Your task to perform on an android device: open app "NewsBreak: Local News & Alerts" Image 0: 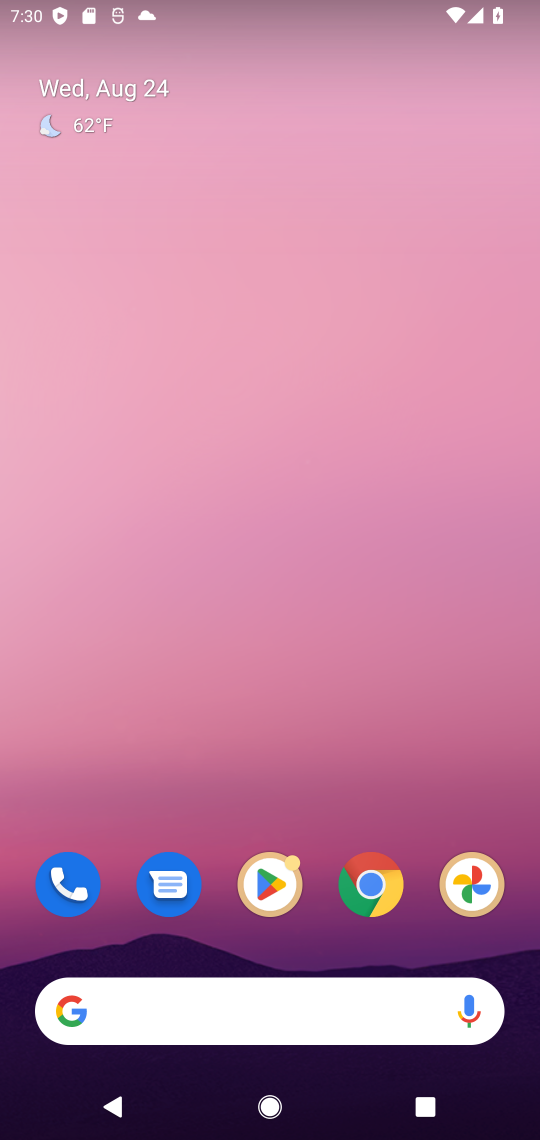
Step 0: click (261, 893)
Your task to perform on an android device: open app "NewsBreak: Local News & Alerts" Image 1: 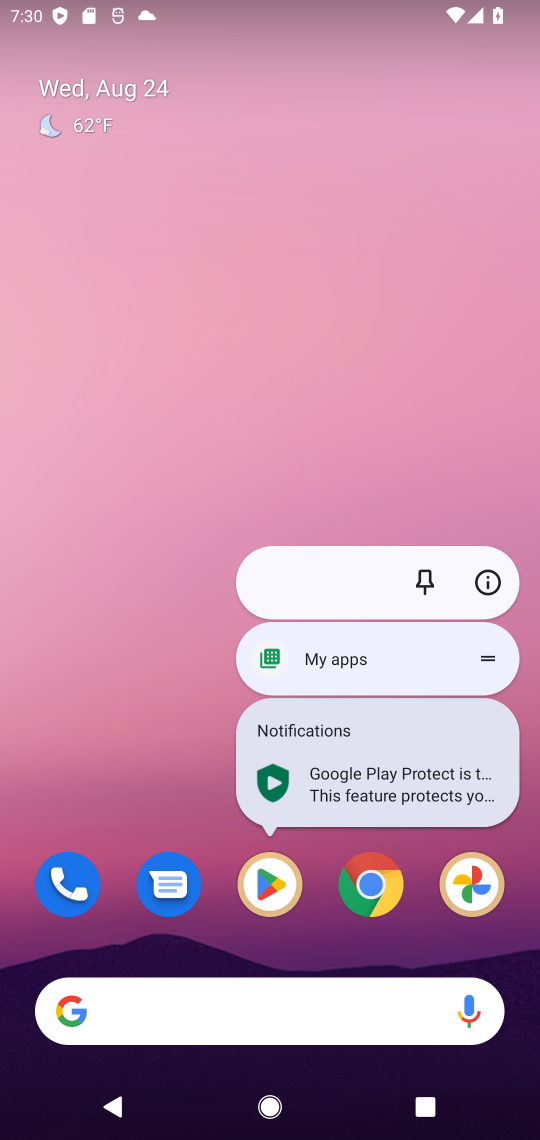
Step 1: click (278, 901)
Your task to perform on an android device: open app "NewsBreak: Local News & Alerts" Image 2: 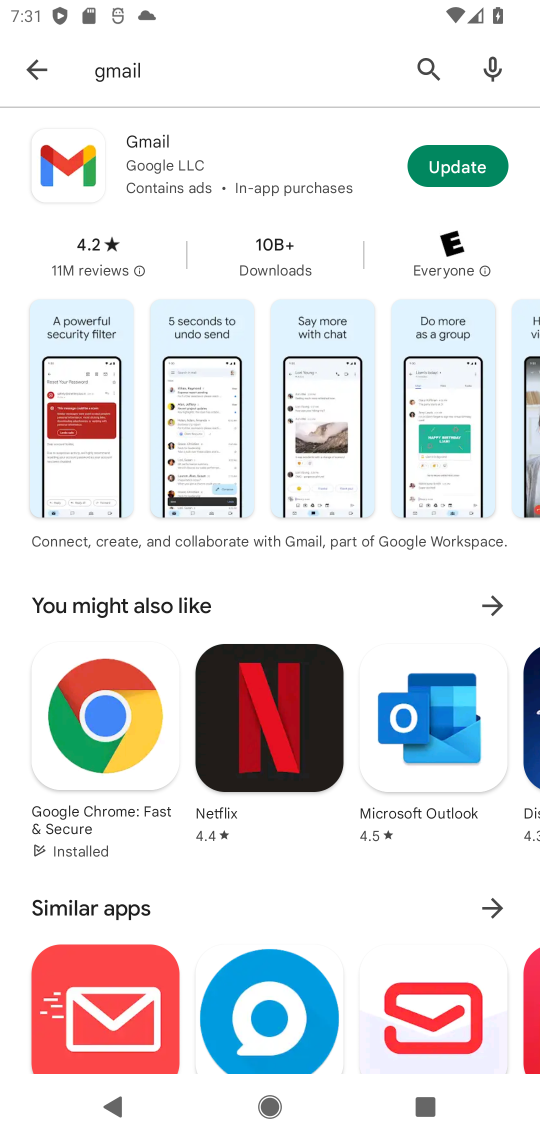
Step 2: click (431, 72)
Your task to perform on an android device: open app "NewsBreak: Local News & Alerts" Image 3: 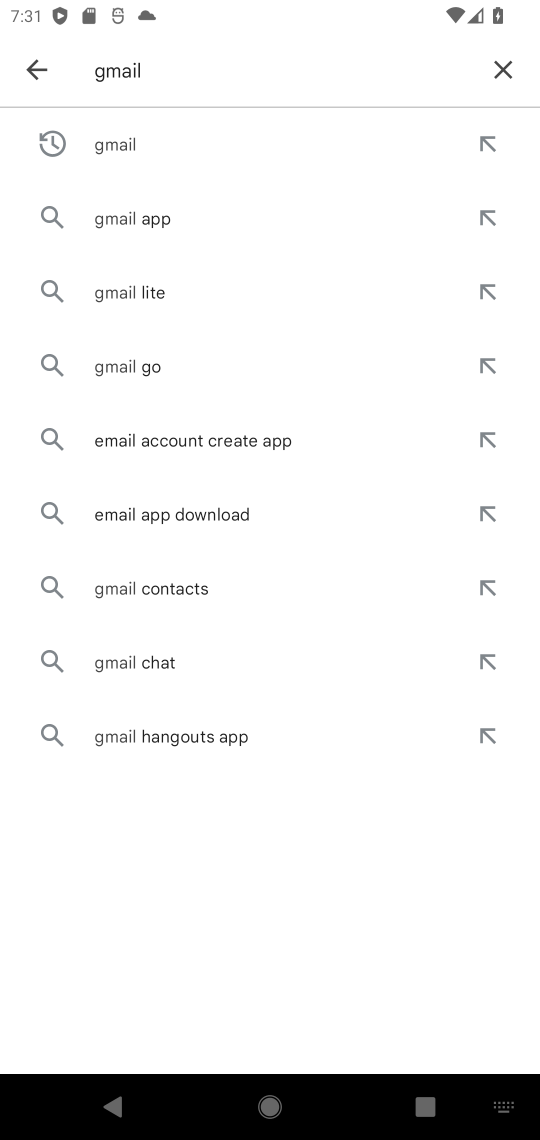
Step 3: click (505, 68)
Your task to perform on an android device: open app "NewsBreak: Local News & Alerts" Image 4: 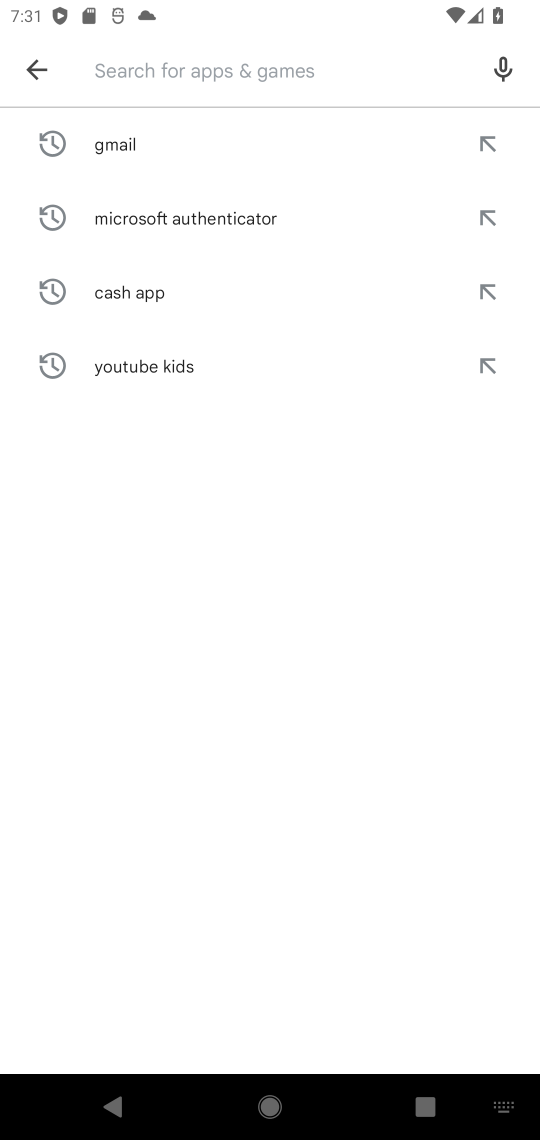
Step 4: type "newsbreak"
Your task to perform on an android device: open app "NewsBreak: Local News & Alerts" Image 5: 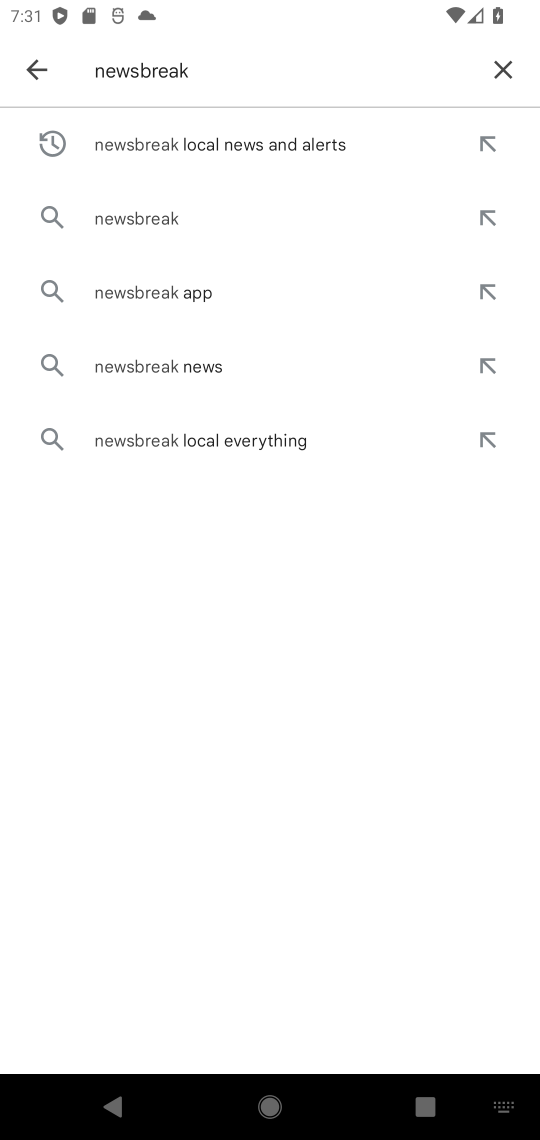
Step 5: click (207, 151)
Your task to perform on an android device: open app "NewsBreak: Local News & Alerts" Image 6: 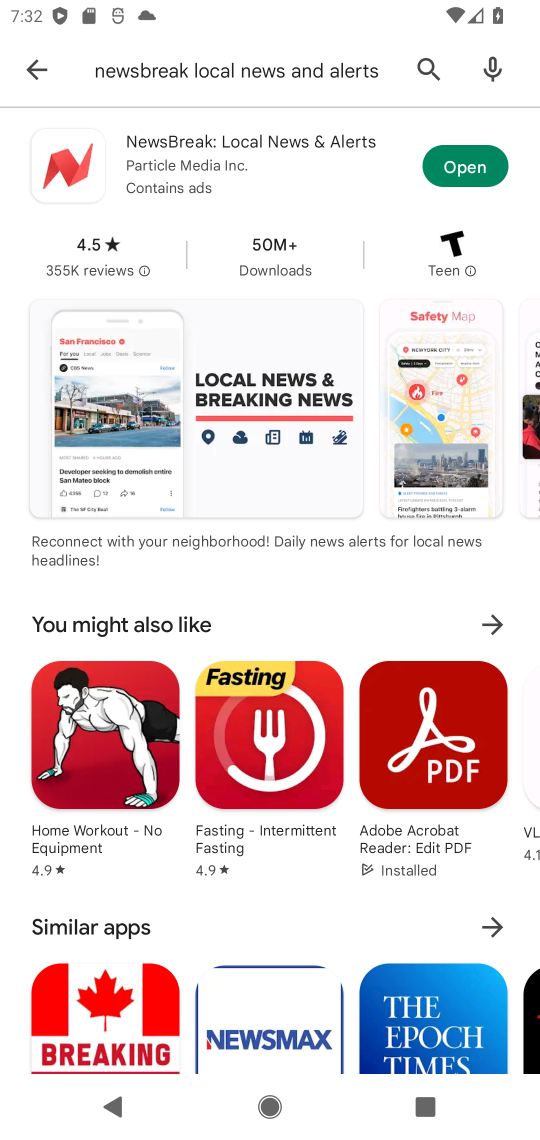
Step 6: click (452, 162)
Your task to perform on an android device: open app "NewsBreak: Local News & Alerts" Image 7: 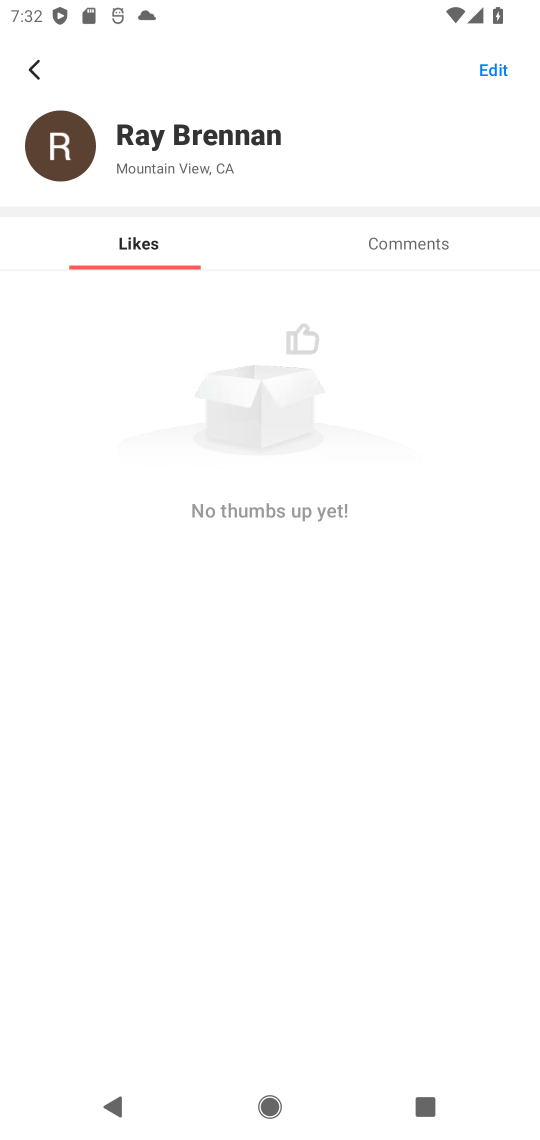
Step 7: task complete